Your task to perform on an android device: turn notification dots off Image 0: 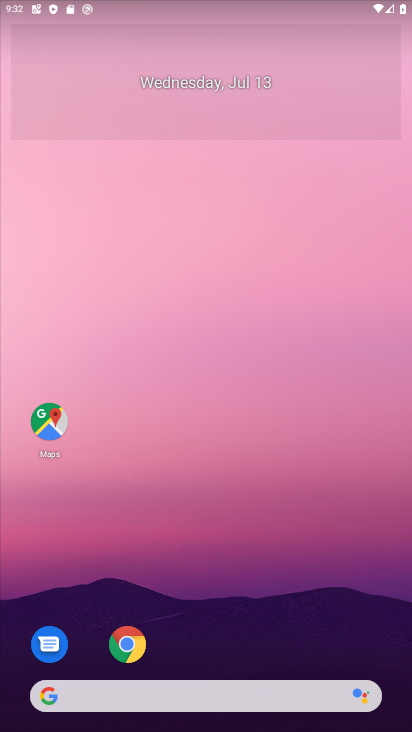
Step 0: drag from (182, 679) to (210, 149)
Your task to perform on an android device: turn notification dots off Image 1: 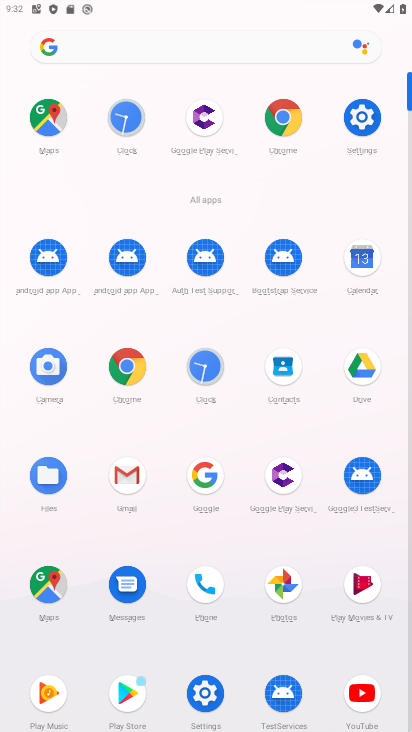
Step 1: click (217, 682)
Your task to perform on an android device: turn notification dots off Image 2: 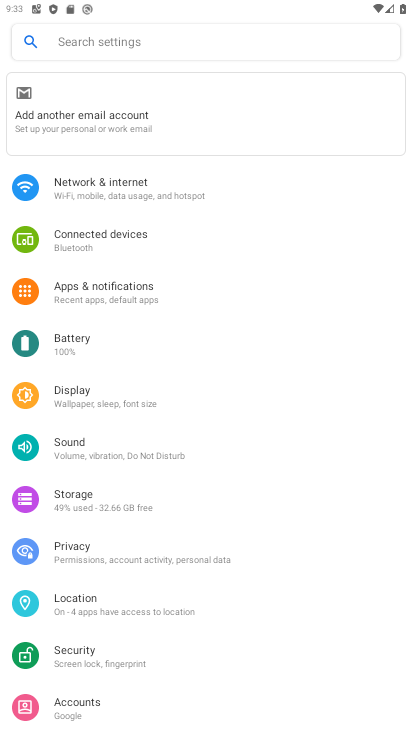
Step 2: click (135, 304)
Your task to perform on an android device: turn notification dots off Image 3: 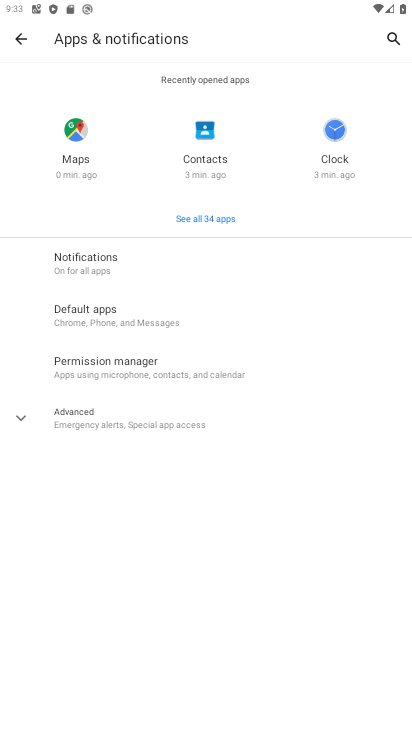
Step 3: click (165, 271)
Your task to perform on an android device: turn notification dots off Image 4: 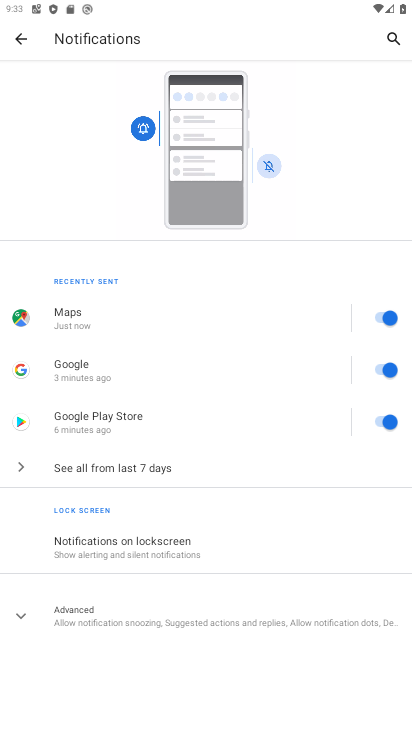
Step 4: click (176, 614)
Your task to perform on an android device: turn notification dots off Image 5: 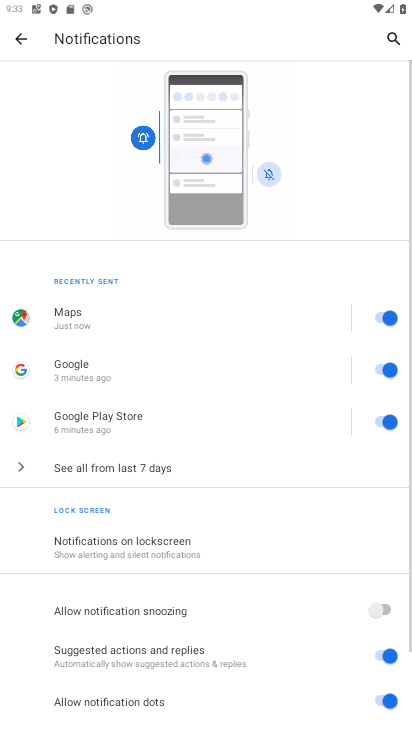
Step 5: drag from (155, 624) to (208, 345)
Your task to perform on an android device: turn notification dots off Image 6: 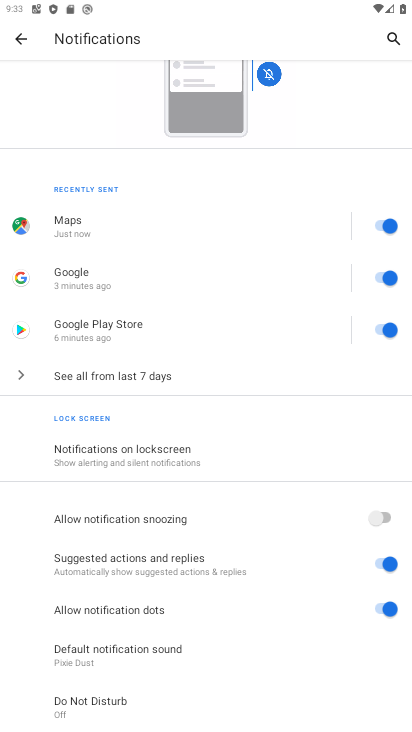
Step 6: click (382, 607)
Your task to perform on an android device: turn notification dots off Image 7: 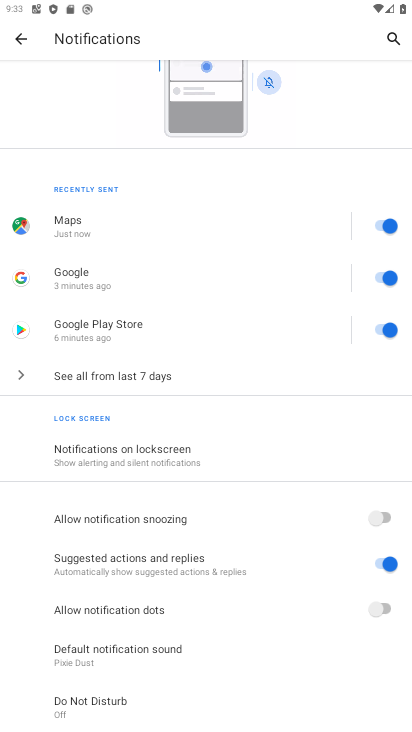
Step 7: task complete